Your task to perform on an android device: Open Google Chrome and click the shortcut for Amazon.com Image 0: 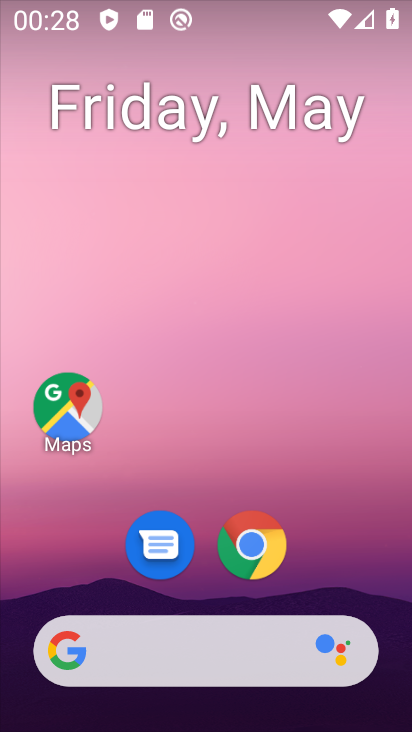
Step 0: click (253, 564)
Your task to perform on an android device: Open Google Chrome and click the shortcut for Amazon.com Image 1: 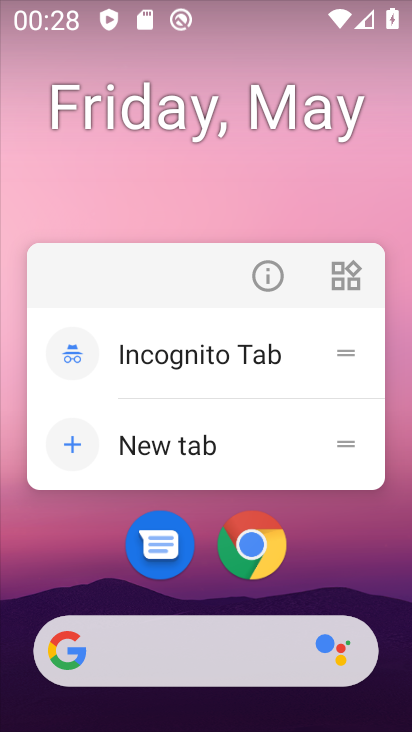
Step 1: click (244, 553)
Your task to perform on an android device: Open Google Chrome and click the shortcut for Amazon.com Image 2: 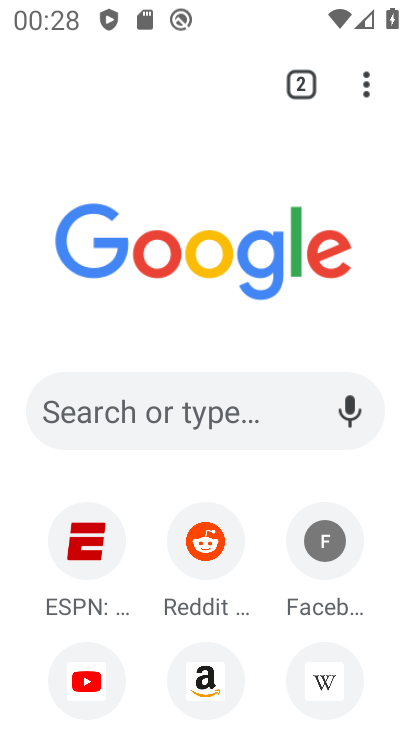
Step 2: click (200, 682)
Your task to perform on an android device: Open Google Chrome and click the shortcut for Amazon.com Image 3: 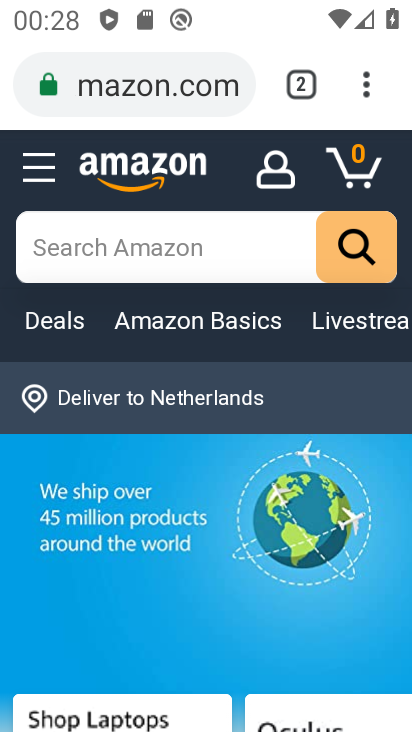
Step 3: task complete